Your task to perform on an android device: turn off airplane mode Image 0: 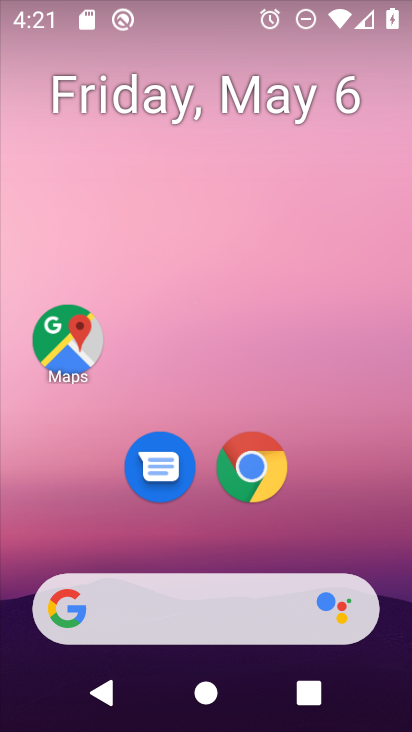
Step 0: drag from (303, 533) to (193, 150)
Your task to perform on an android device: turn off airplane mode Image 1: 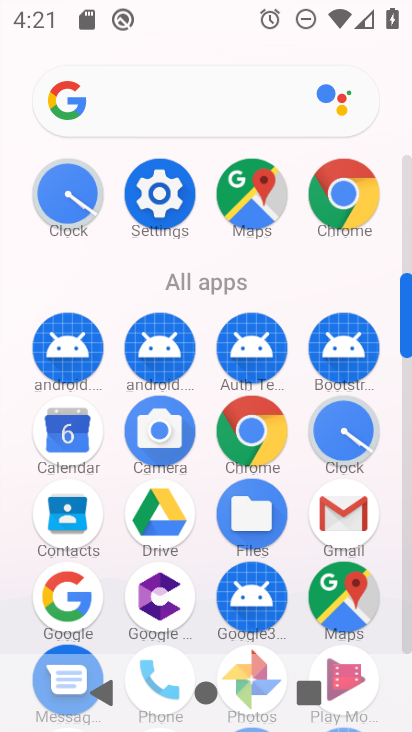
Step 1: drag from (283, 531) to (288, 193)
Your task to perform on an android device: turn off airplane mode Image 2: 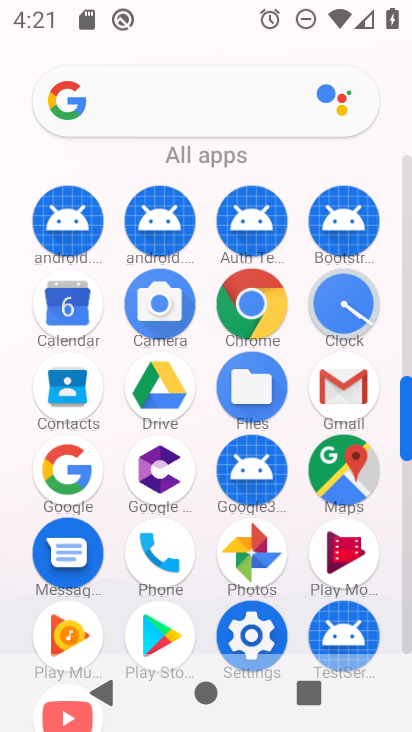
Step 2: click (241, 630)
Your task to perform on an android device: turn off airplane mode Image 3: 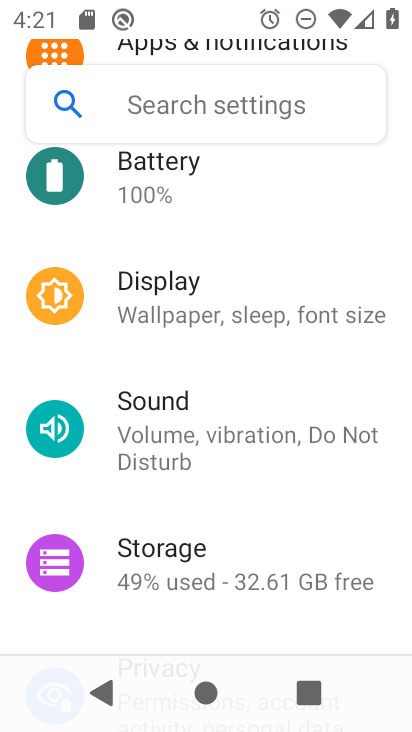
Step 3: drag from (254, 244) to (253, 629)
Your task to perform on an android device: turn off airplane mode Image 4: 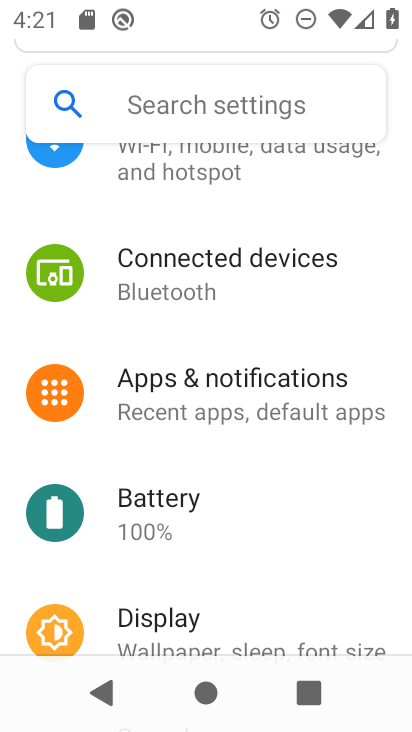
Step 4: drag from (228, 228) to (234, 529)
Your task to perform on an android device: turn off airplane mode Image 5: 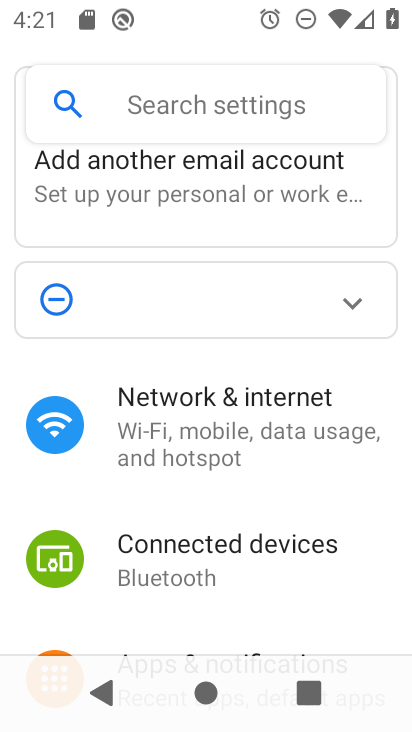
Step 5: click (185, 423)
Your task to perform on an android device: turn off airplane mode Image 6: 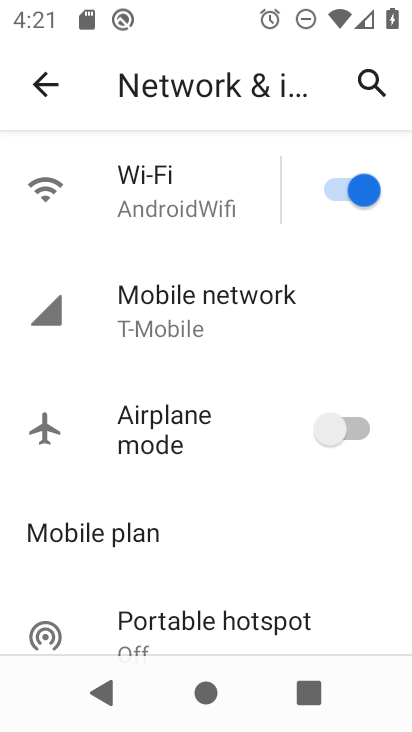
Step 6: task complete